Your task to perform on an android device: Open Google Chrome Image 0: 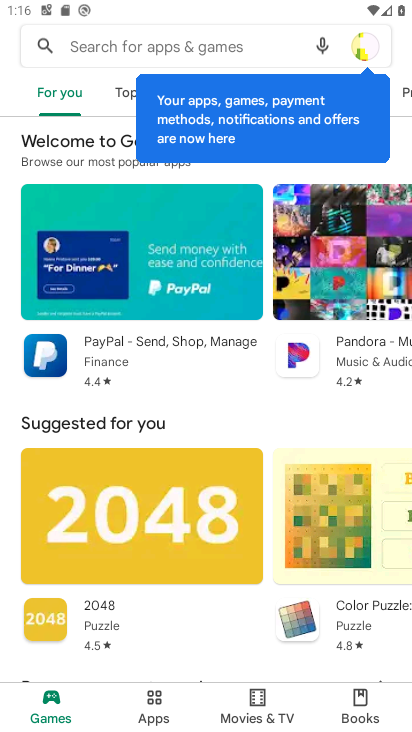
Step 0: press home button
Your task to perform on an android device: Open Google Chrome Image 1: 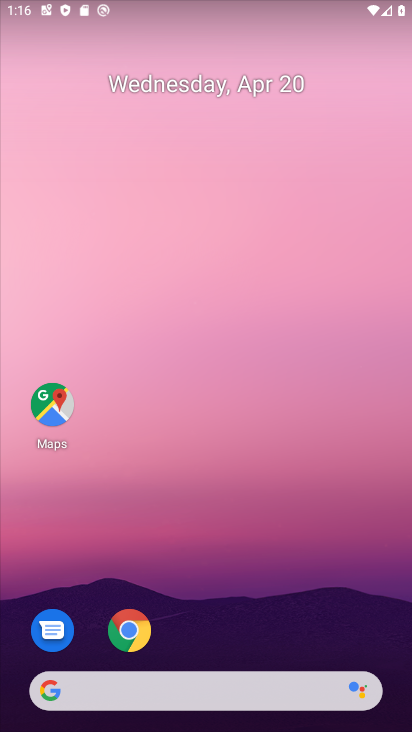
Step 1: drag from (339, 597) to (350, 244)
Your task to perform on an android device: Open Google Chrome Image 2: 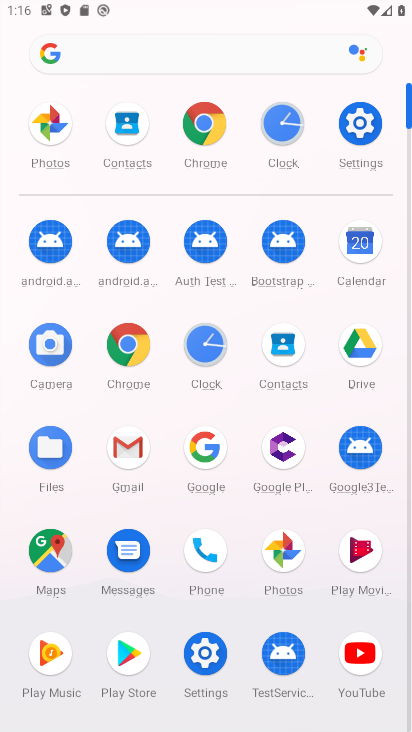
Step 2: click (122, 349)
Your task to perform on an android device: Open Google Chrome Image 3: 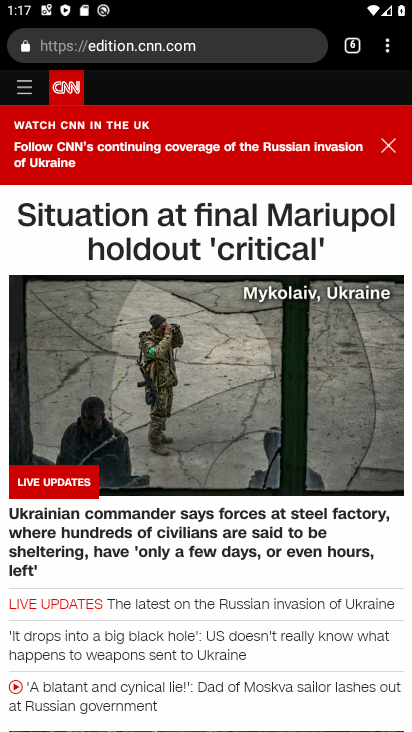
Step 3: task complete